Your task to perform on an android device: stop showing notifications on the lock screen Image 0: 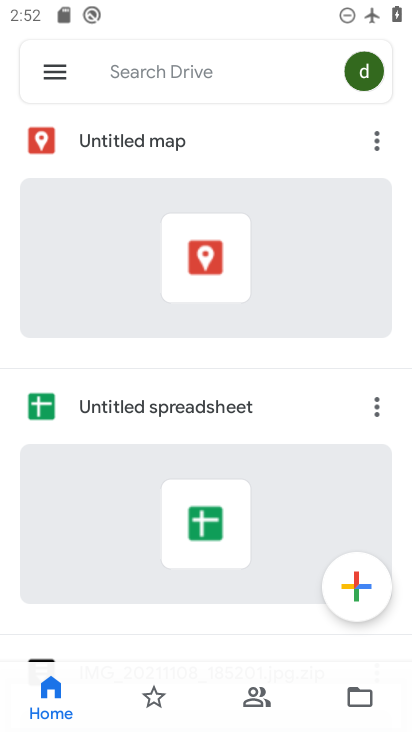
Step 0: press home button
Your task to perform on an android device: stop showing notifications on the lock screen Image 1: 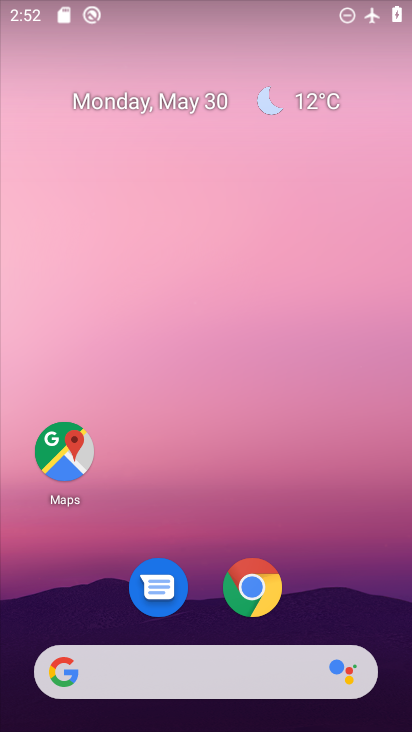
Step 1: drag from (228, 571) to (255, 246)
Your task to perform on an android device: stop showing notifications on the lock screen Image 2: 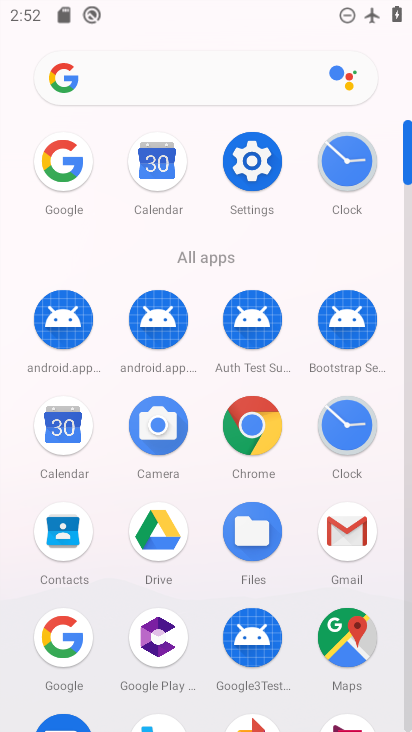
Step 2: click (243, 164)
Your task to perform on an android device: stop showing notifications on the lock screen Image 3: 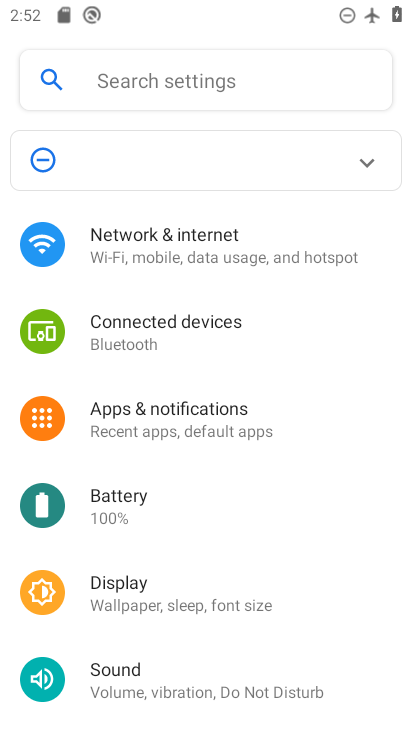
Step 3: click (213, 433)
Your task to perform on an android device: stop showing notifications on the lock screen Image 4: 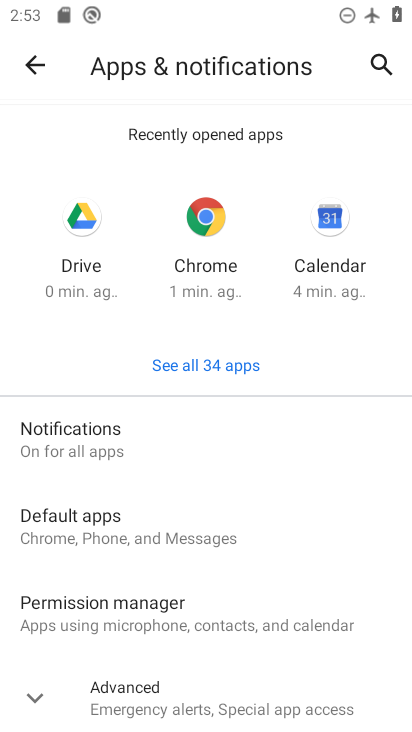
Step 4: click (70, 440)
Your task to perform on an android device: stop showing notifications on the lock screen Image 5: 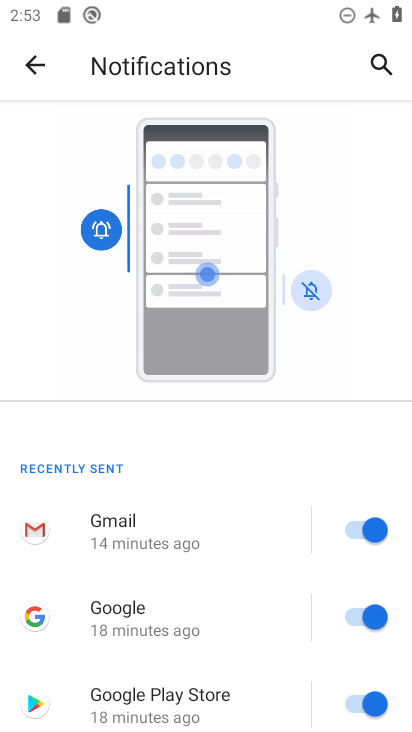
Step 5: drag from (209, 638) to (215, 224)
Your task to perform on an android device: stop showing notifications on the lock screen Image 6: 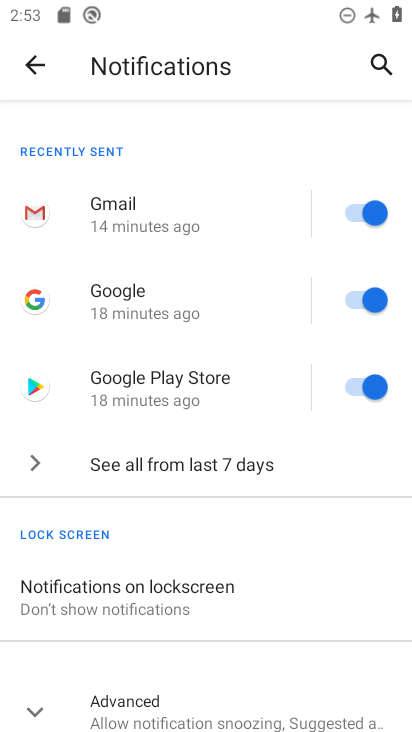
Step 6: click (145, 607)
Your task to perform on an android device: stop showing notifications on the lock screen Image 7: 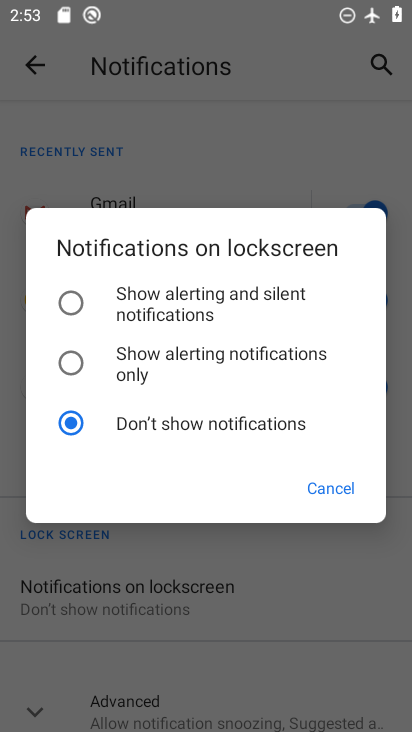
Step 7: task complete